Your task to perform on an android device: Open Google Maps and go to "Timeline" Image 0: 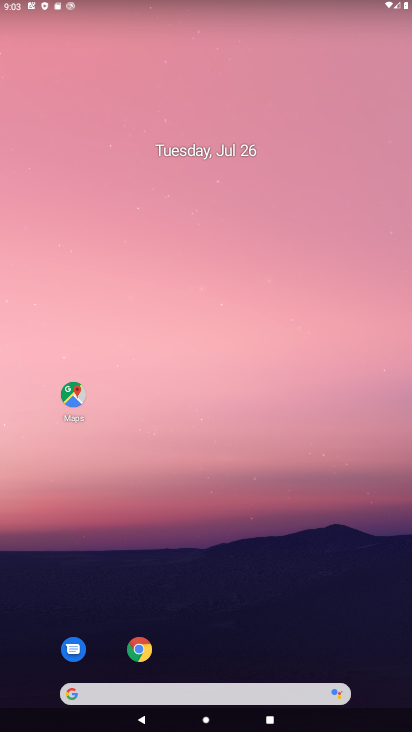
Step 0: drag from (191, 573) to (321, 15)
Your task to perform on an android device: Open Google Maps and go to "Timeline" Image 1: 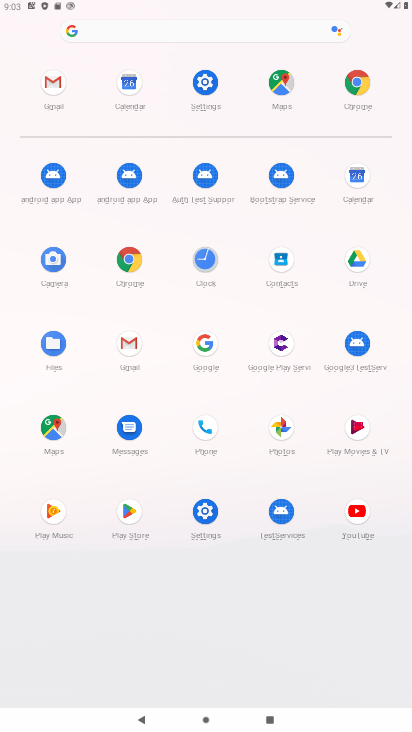
Step 1: click (56, 431)
Your task to perform on an android device: Open Google Maps and go to "Timeline" Image 2: 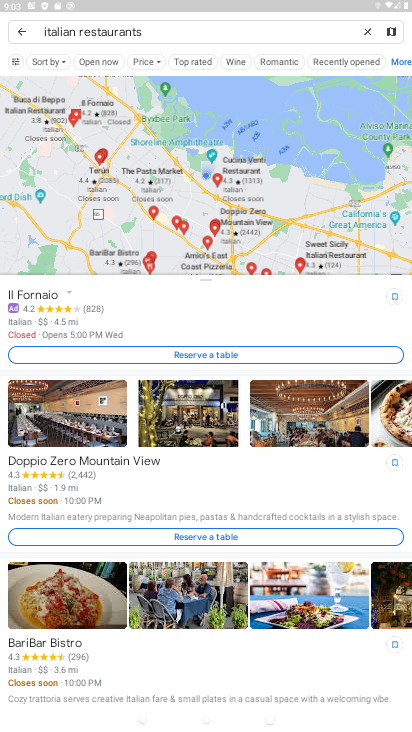
Step 2: click (23, 30)
Your task to perform on an android device: Open Google Maps and go to "Timeline" Image 3: 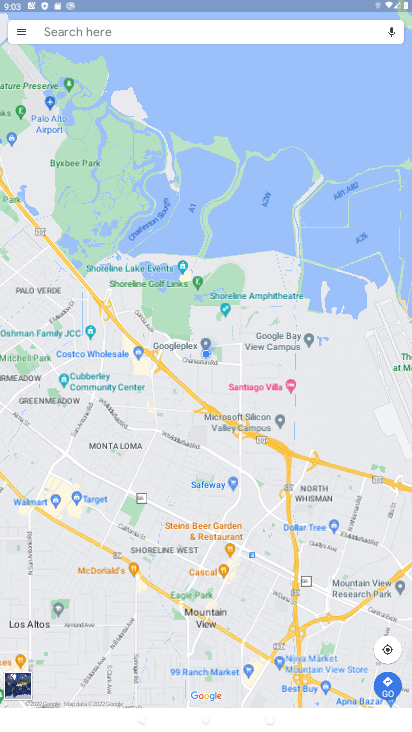
Step 3: click (25, 31)
Your task to perform on an android device: Open Google Maps and go to "Timeline" Image 4: 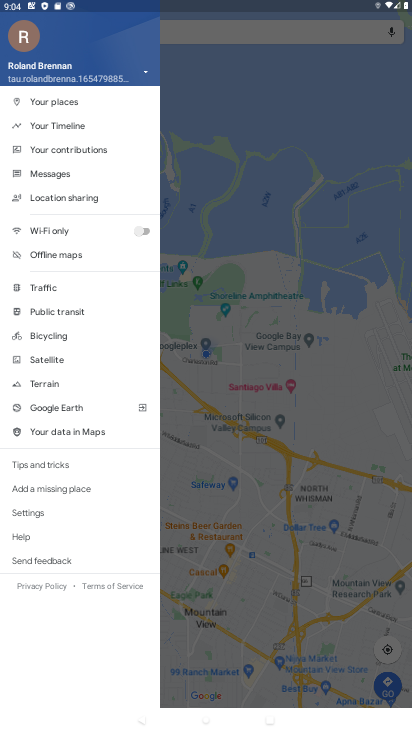
Step 4: click (78, 121)
Your task to perform on an android device: Open Google Maps and go to "Timeline" Image 5: 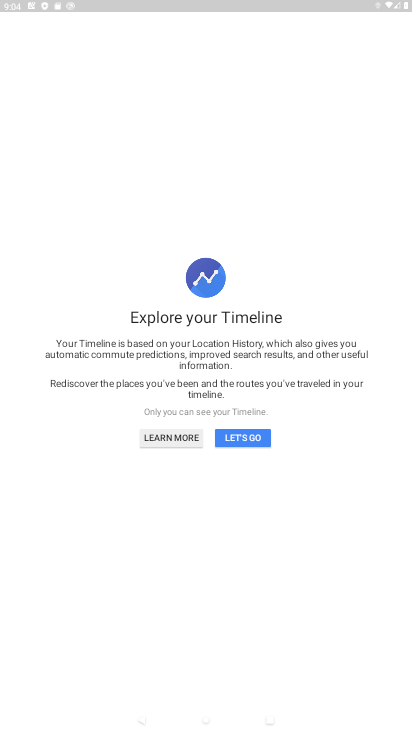
Step 5: click (257, 443)
Your task to perform on an android device: Open Google Maps and go to "Timeline" Image 6: 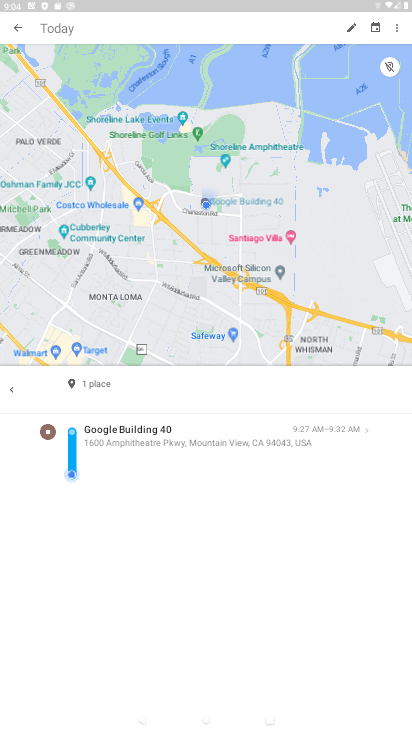
Step 6: task complete